Your task to perform on an android device: turn off location Image 0: 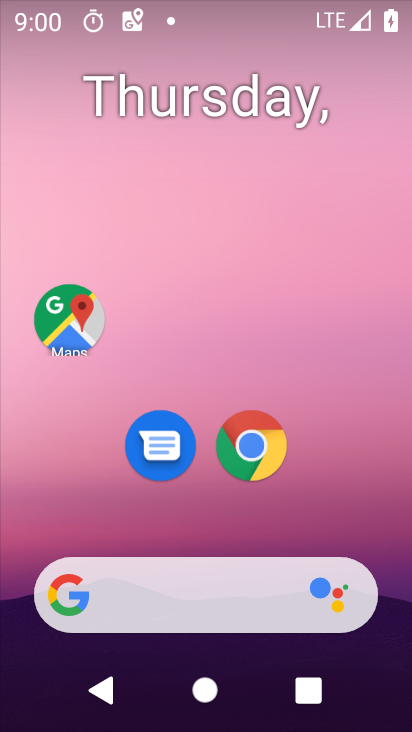
Step 0: drag from (180, 522) to (188, 129)
Your task to perform on an android device: turn off location Image 1: 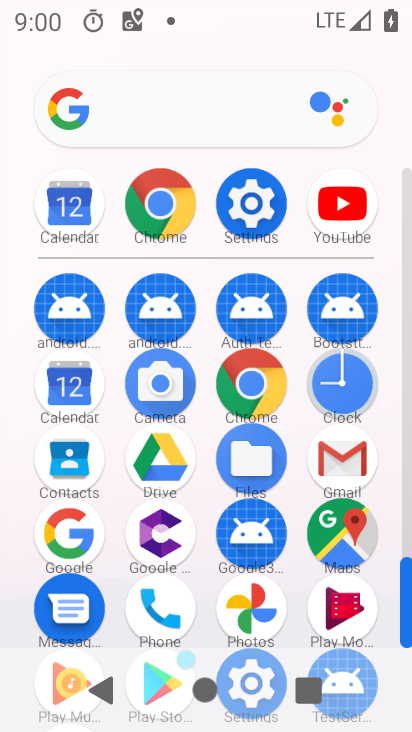
Step 1: click (241, 191)
Your task to perform on an android device: turn off location Image 2: 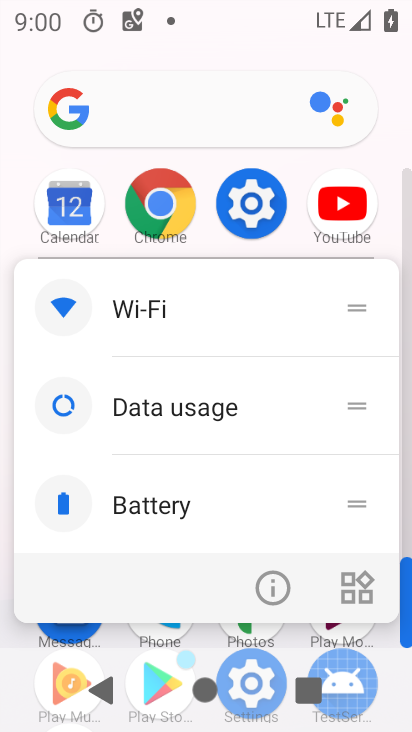
Step 2: click (271, 592)
Your task to perform on an android device: turn off location Image 3: 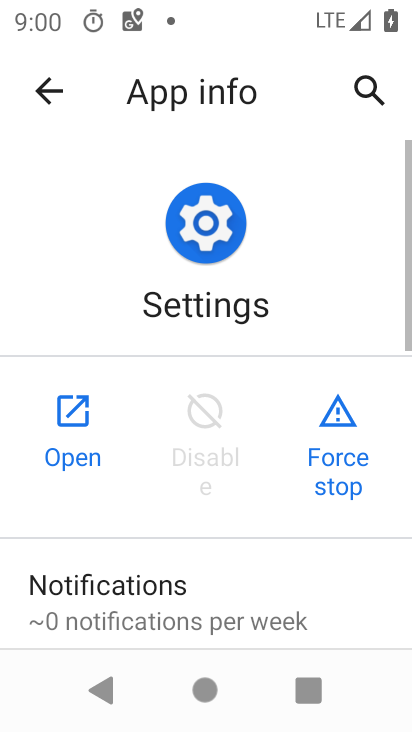
Step 3: click (108, 425)
Your task to perform on an android device: turn off location Image 4: 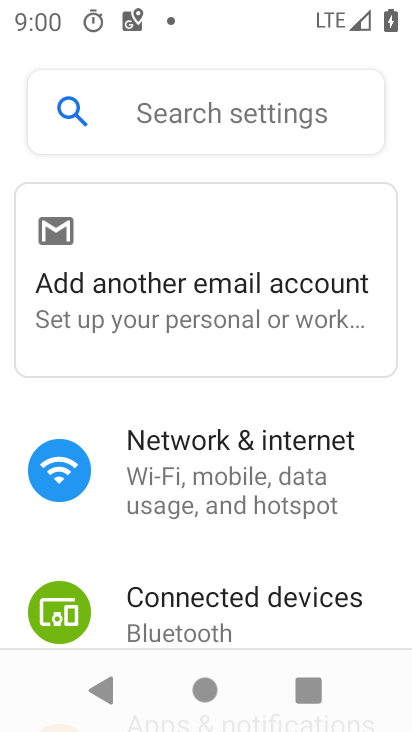
Step 4: drag from (242, 573) to (287, 176)
Your task to perform on an android device: turn off location Image 5: 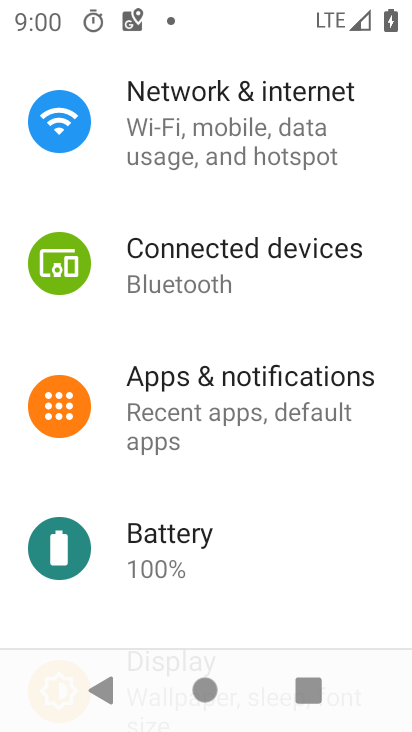
Step 5: drag from (219, 508) to (244, 138)
Your task to perform on an android device: turn off location Image 6: 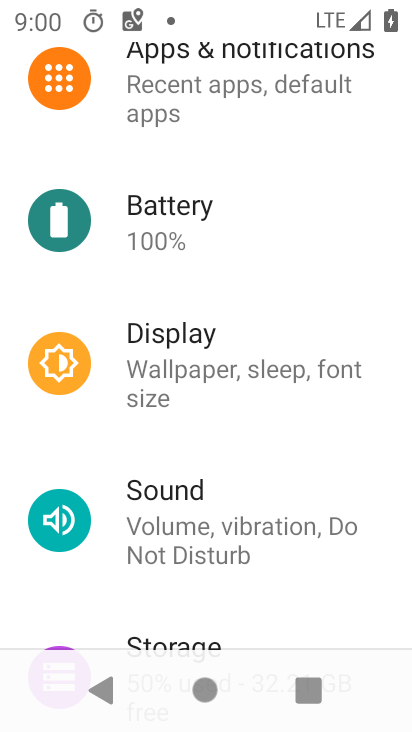
Step 6: drag from (206, 531) to (254, 164)
Your task to perform on an android device: turn off location Image 7: 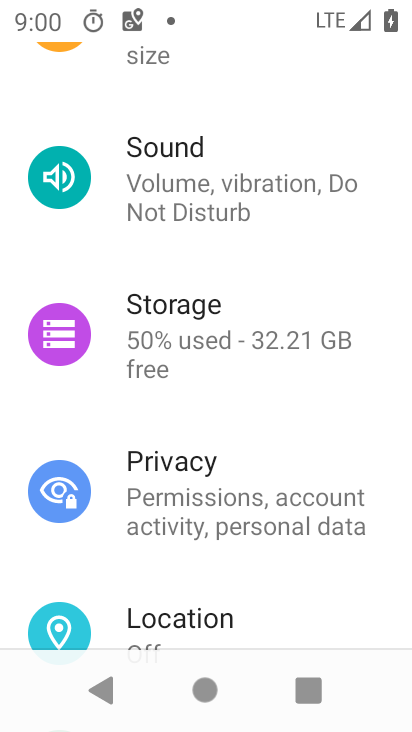
Step 7: click (205, 606)
Your task to perform on an android device: turn off location Image 8: 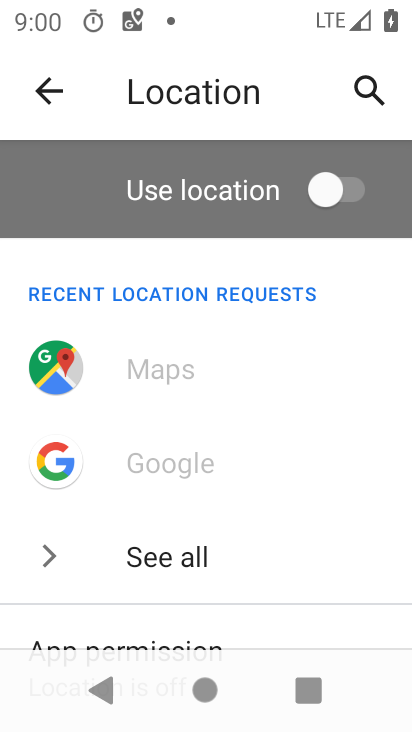
Step 8: task complete